Your task to perform on an android device: change text size in settings app Image 0: 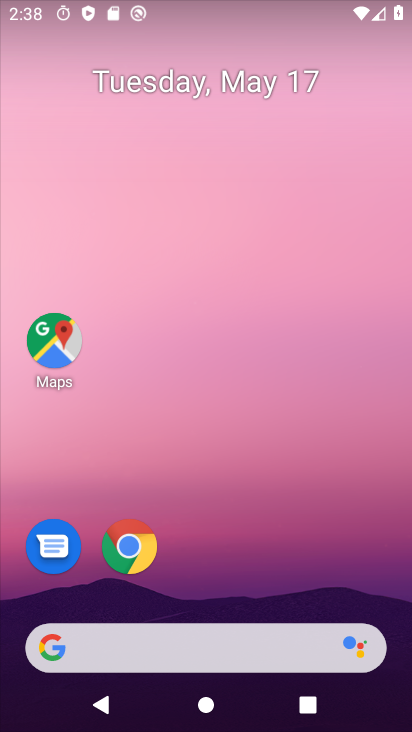
Step 0: drag from (227, 625) to (240, 158)
Your task to perform on an android device: change text size in settings app Image 1: 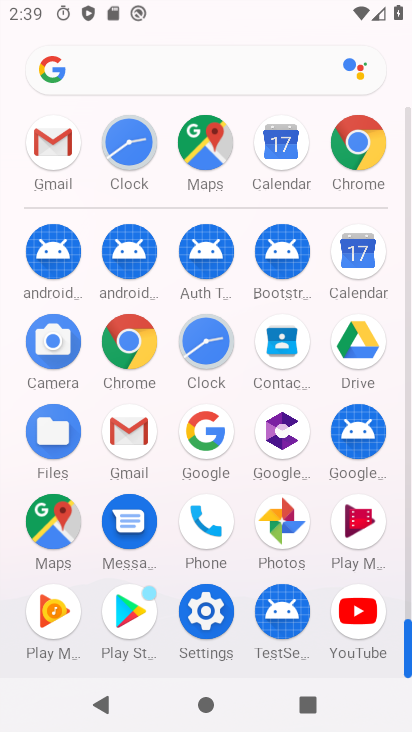
Step 1: click (209, 629)
Your task to perform on an android device: change text size in settings app Image 2: 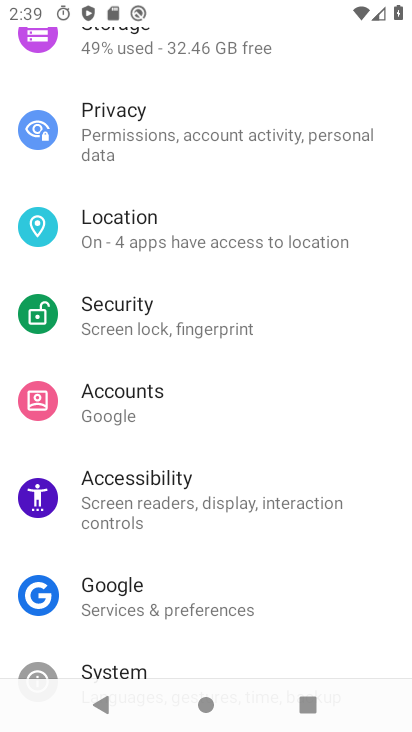
Step 2: drag from (169, 217) to (214, 597)
Your task to perform on an android device: change text size in settings app Image 3: 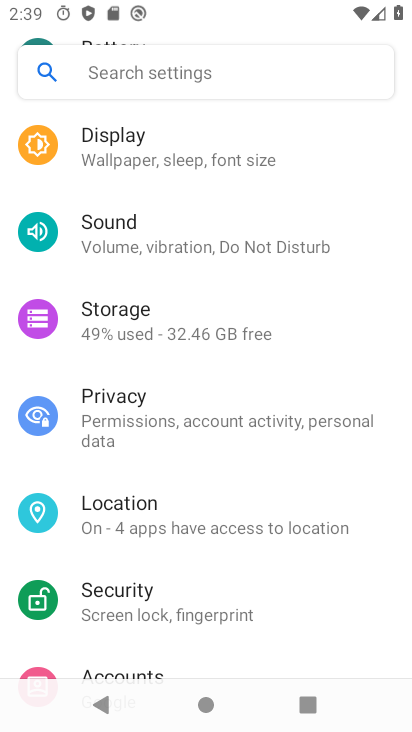
Step 3: drag from (197, 317) to (230, 635)
Your task to perform on an android device: change text size in settings app Image 4: 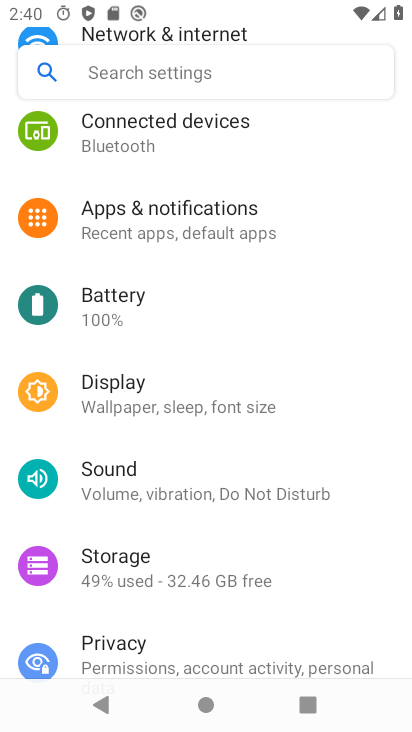
Step 4: click (178, 397)
Your task to perform on an android device: change text size in settings app Image 5: 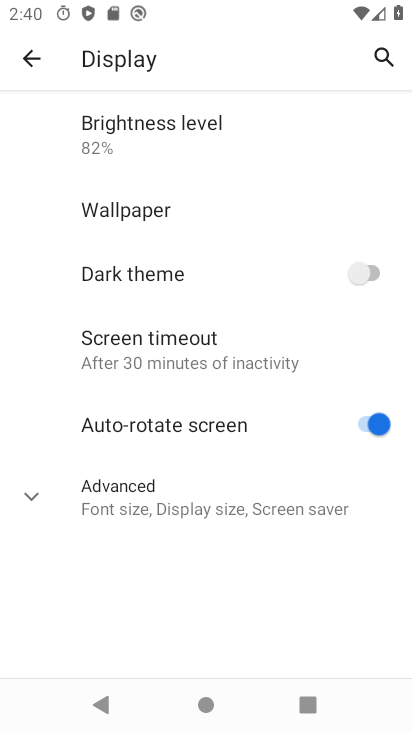
Step 5: click (188, 514)
Your task to perform on an android device: change text size in settings app Image 6: 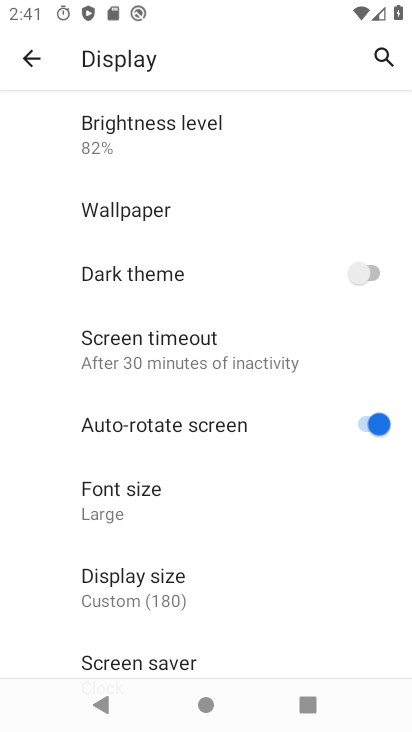
Step 6: click (134, 501)
Your task to perform on an android device: change text size in settings app Image 7: 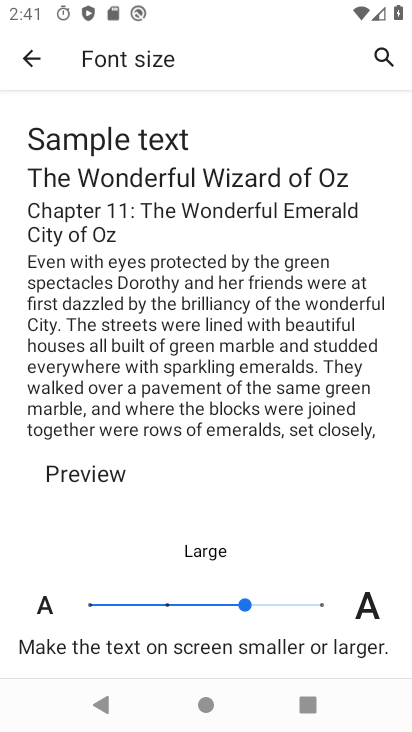
Step 7: click (167, 606)
Your task to perform on an android device: change text size in settings app Image 8: 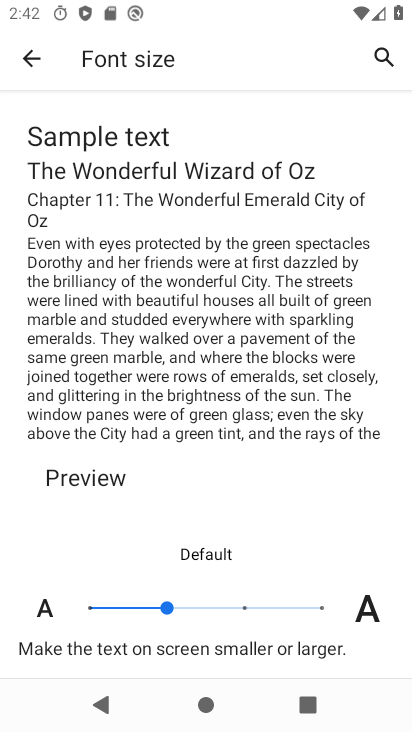
Step 8: task complete